Your task to perform on an android device: Open the calendar and show me this week's events? Image 0: 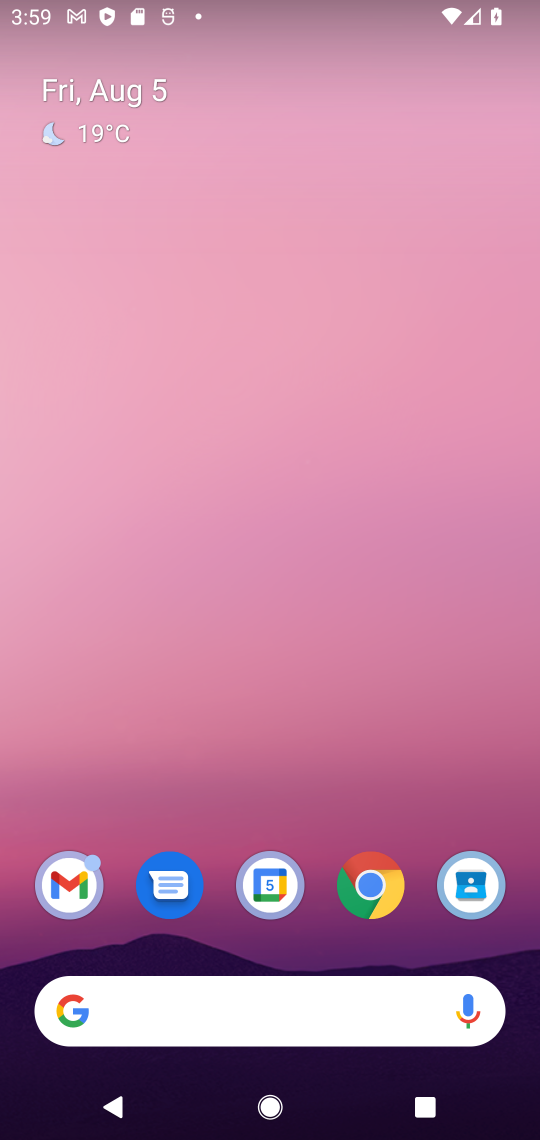
Step 0: drag from (315, 900) to (315, 110)
Your task to perform on an android device: Open the calendar and show me this week's events? Image 1: 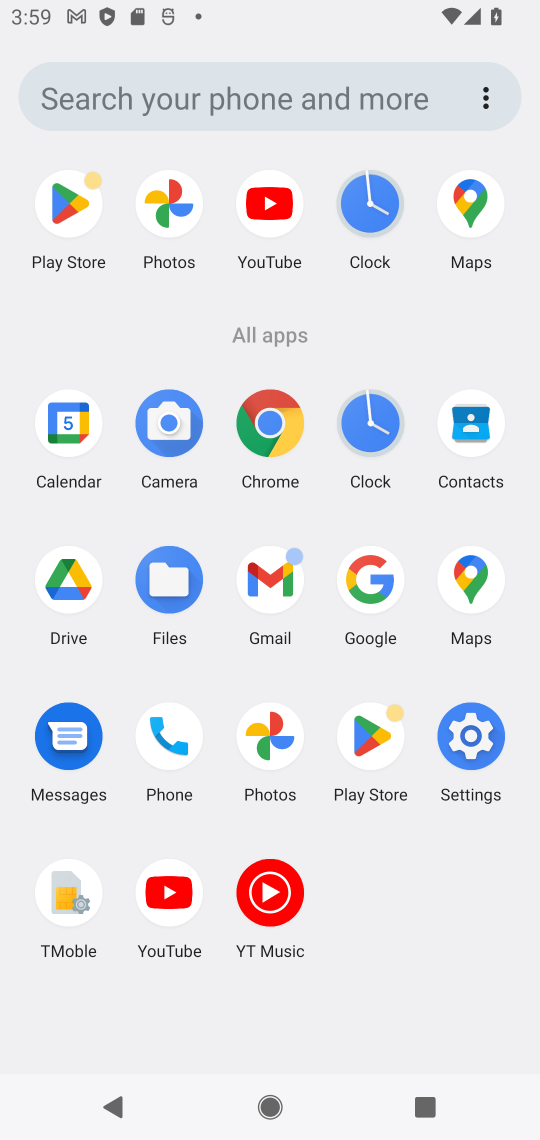
Step 1: click (60, 420)
Your task to perform on an android device: Open the calendar and show me this week's events? Image 2: 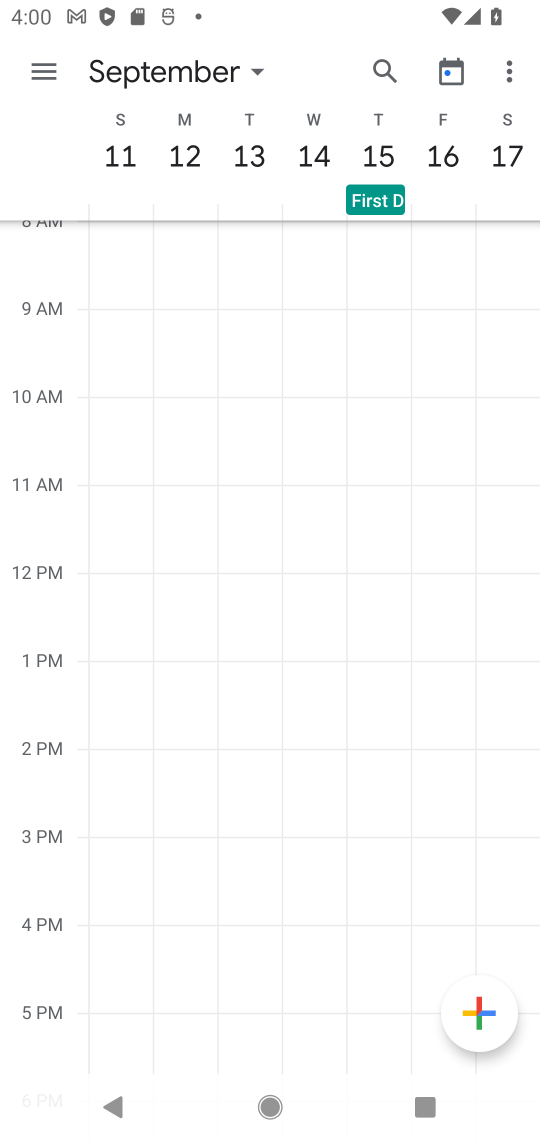
Step 2: click (255, 70)
Your task to perform on an android device: Open the calendar and show me this week's events? Image 3: 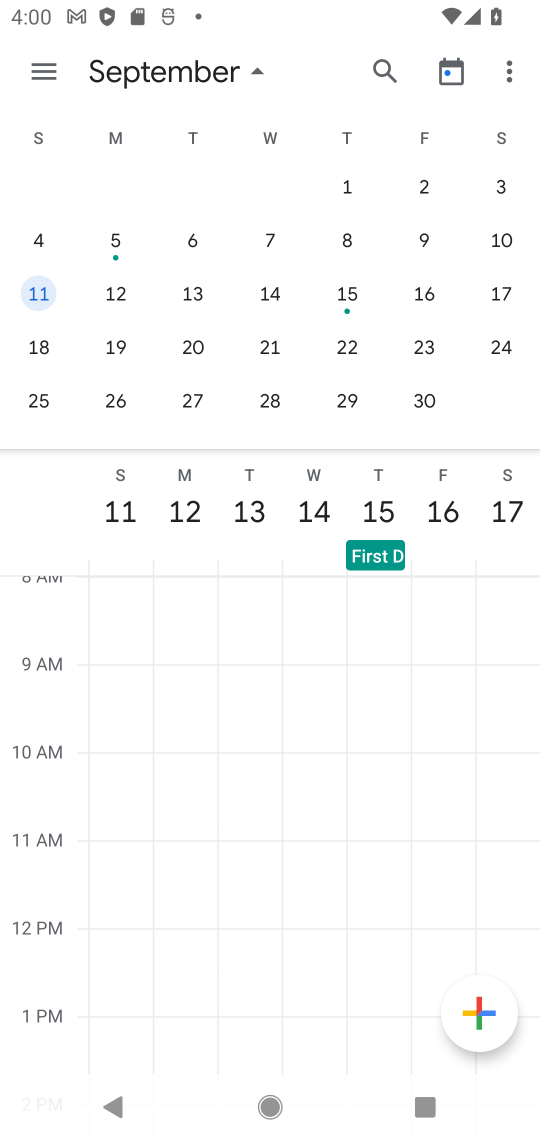
Step 3: drag from (92, 314) to (470, 329)
Your task to perform on an android device: Open the calendar and show me this week's events? Image 4: 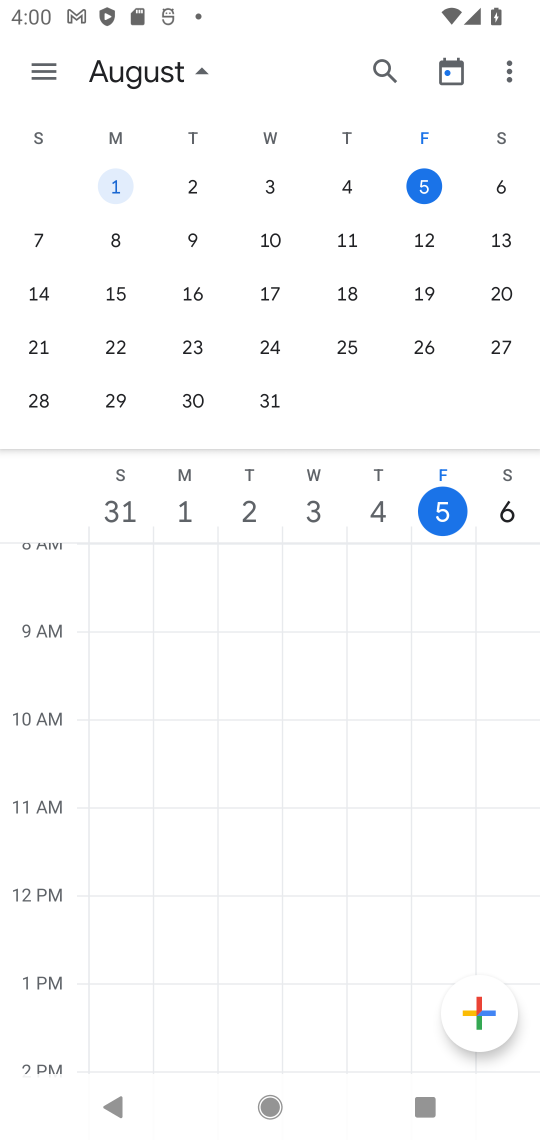
Step 4: click (43, 60)
Your task to perform on an android device: Open the calendar and show me this week's events? Image 5: 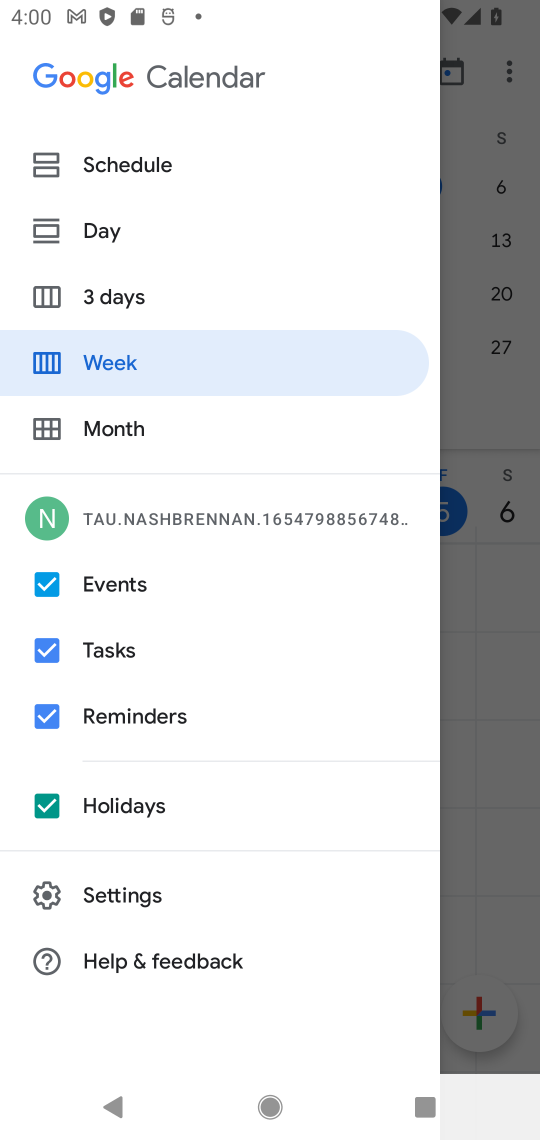
Step 5: click (50, 804)
Your task to perform on an android device: Open the calendar and show me this week's events? Image 6: 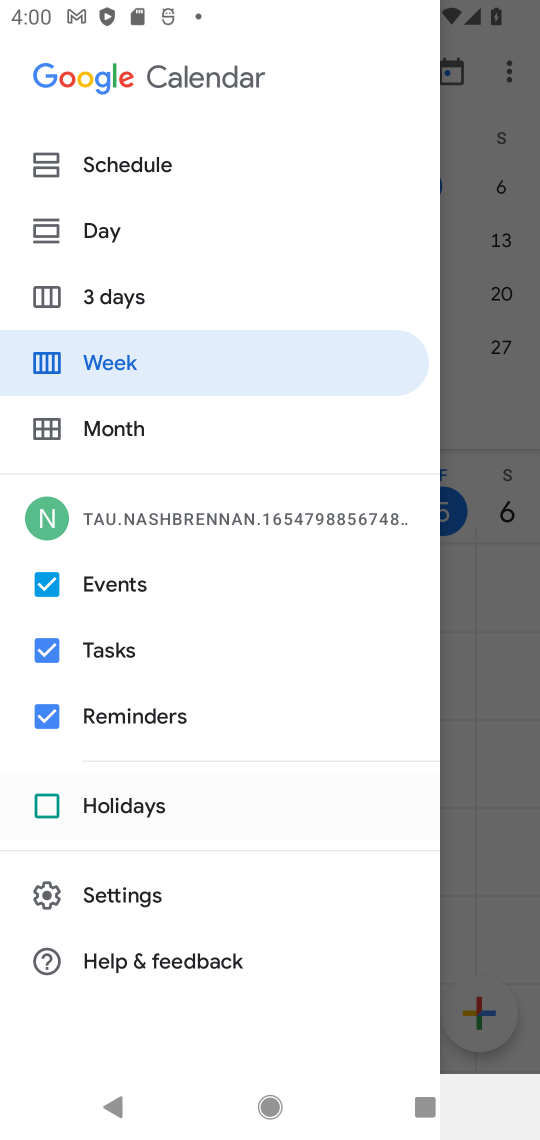
Step 6: click (50, 712)
Your task to perform on an android device: Open the calendar and show me this week's events? Image 7: 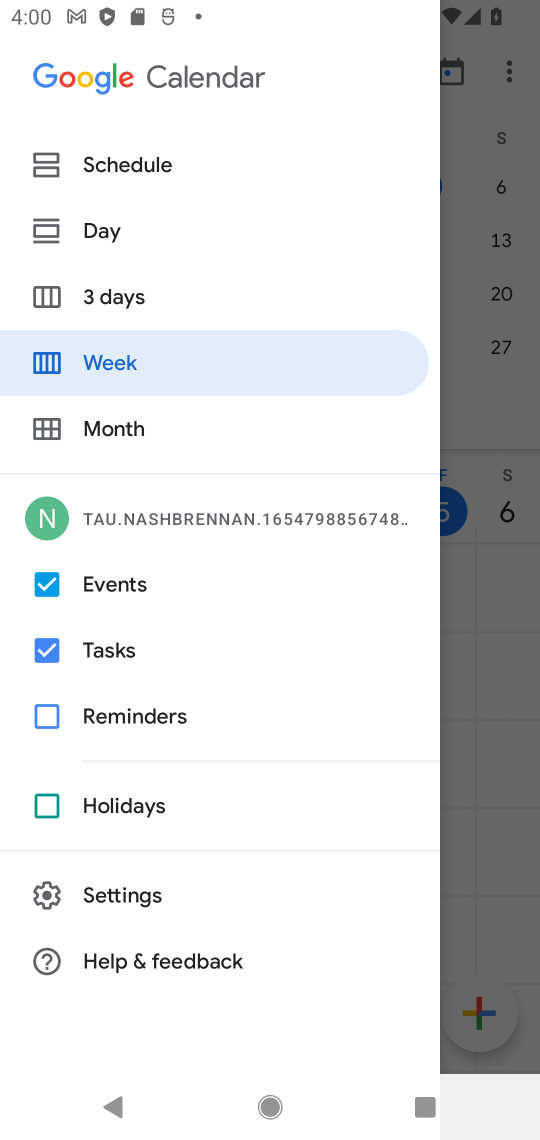
Step 7: click (51, 649)
Your task to perform on an android device: Open the calendar and show me this week's events? Image 8: 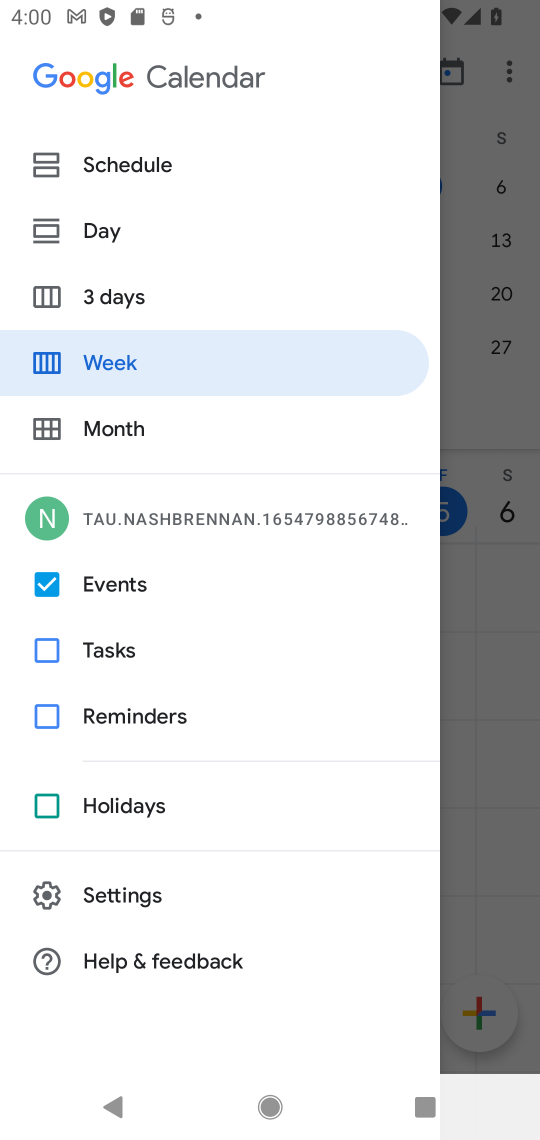
Step 8: click (165, 343)
Your task to perform on an android device: Open the calendar and show me this week's events? Image 9: 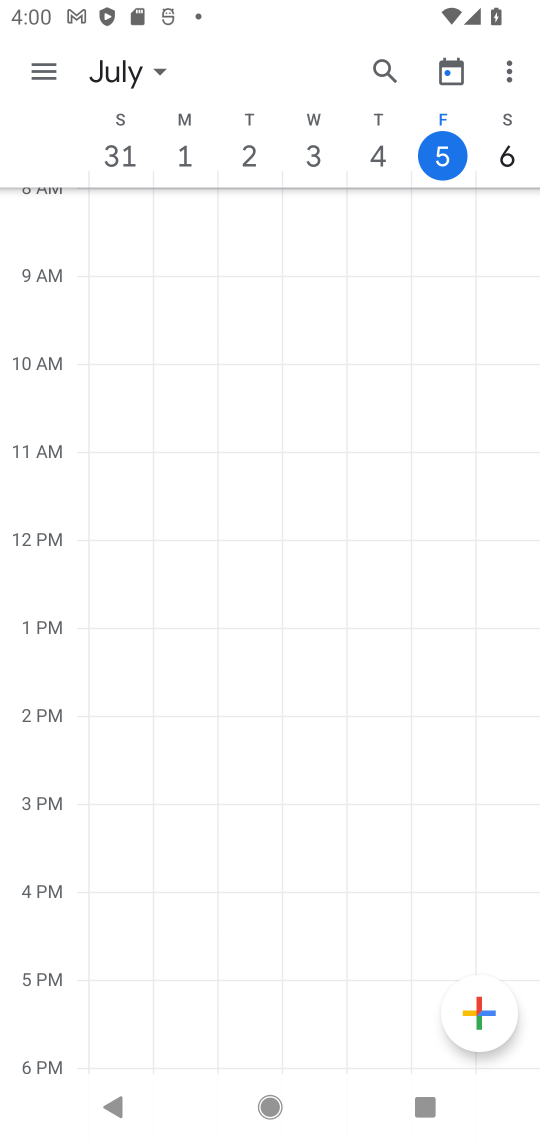
Step 9: task complete